Your task to perform on an android device: What's the weather going to be tomorrow? Image 0: 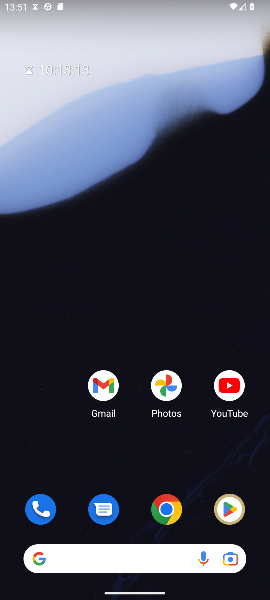
Step 0: press home button
Your task to perform on an android device: What's the weather going to be tomorrow? Image 1: 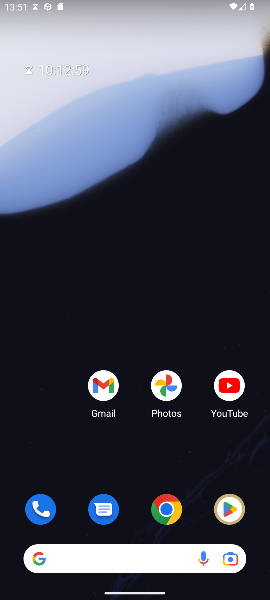
Step 1: drag from (141, 505) to (269, 100)
Your task to perform on an android device: What's the weather going to be tomorrow? Image 2: 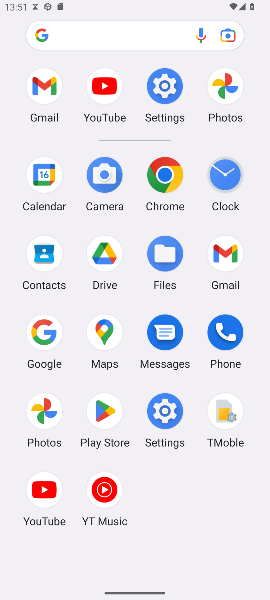
Step 2: click (45, 347)
Your task to perform on an android device: What's the weather going to be tomorrow? Image 3: 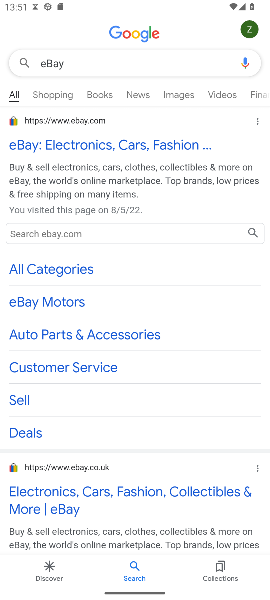
Step 3: click (133, 66)
Your task to perform on an android device: What's the weather going to be tomorrow? Image 4: 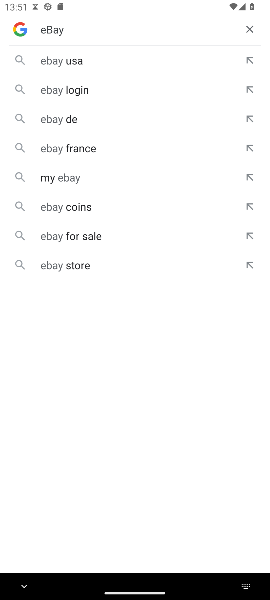
Step 4: click (248, 30)
Your task to perform on an android device: What's the weather going to be tomorrow? Image 5: 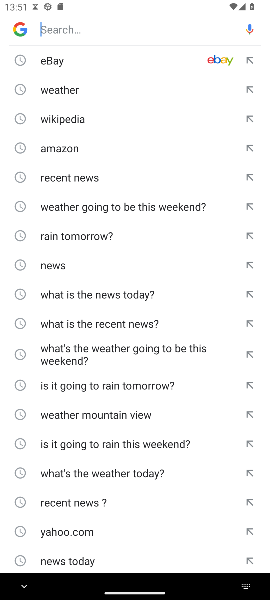
Step 5: type " weather going to be tomorrow?"
Your task to perform on an android device: What's the weather going to be tomorrow? Image 6: 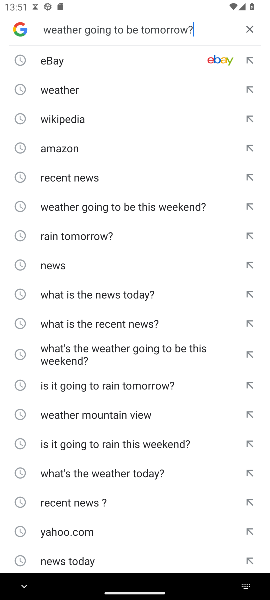
Step 6: press enter
Your task to perform on an android device: What's the weather going to be tomorrow? Image 7: 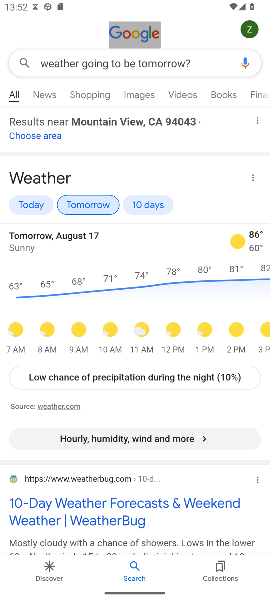
Step 7: task complete